Your task to perform on an android device: set an alarm Image 0: 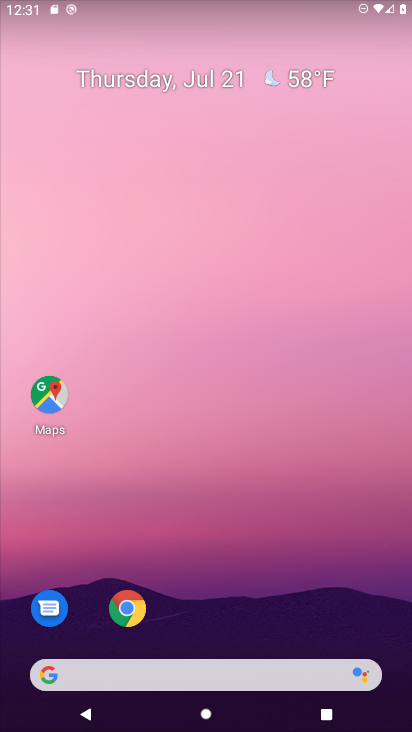
Step 0: press home button
Your task to perform on an android device: set an alarm Image 1: 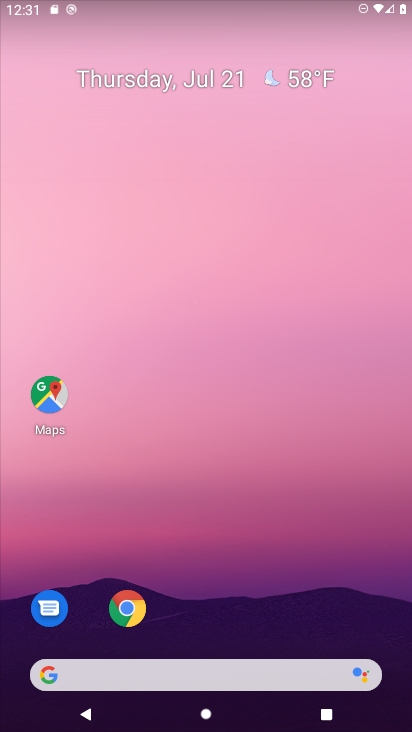
Step 1: drag from (228, 634) to (243, 0)
Your task to perform on an android device: set an alarm Image 2: 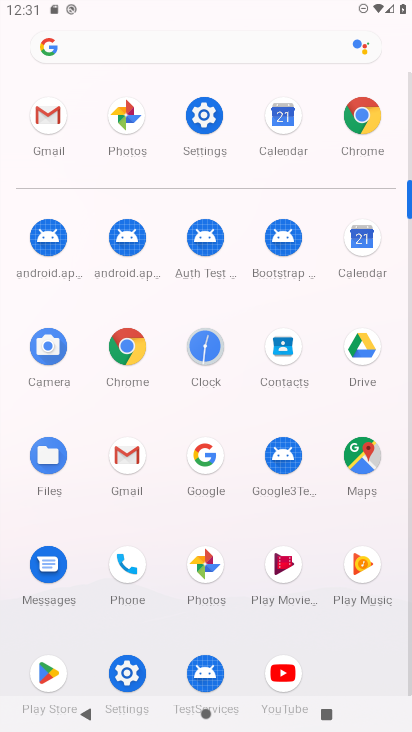
Step 2: click (204, 348)
Your task to perform on an android device: set an alarm Image 3: 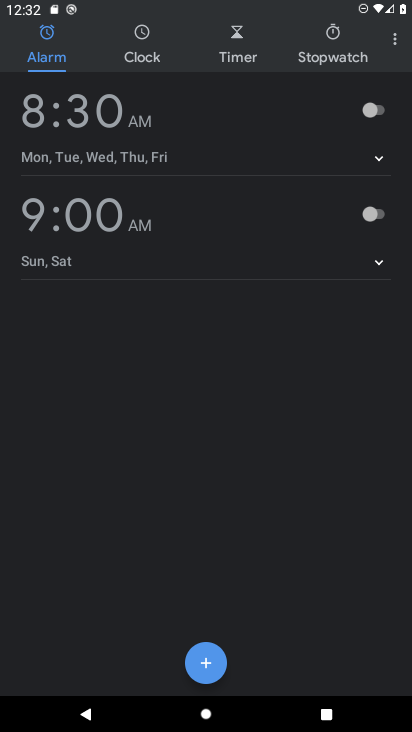
Step 3: click (370, 108)
Your task to perform on an android device: set an alarm Image 4: 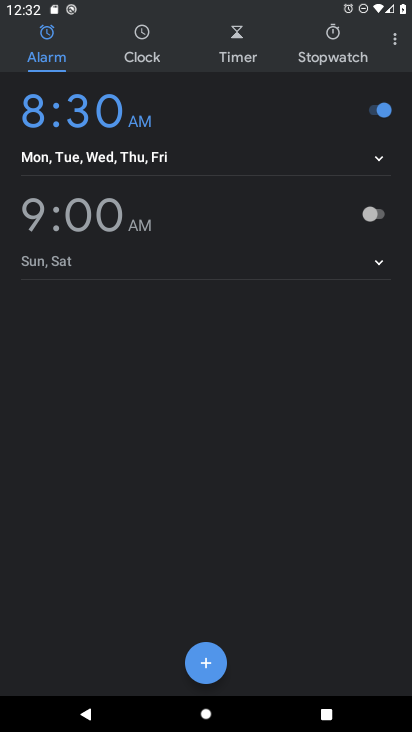
Step 4: task complete